Your task to perform on an android device: Go to Google maps Image 0: 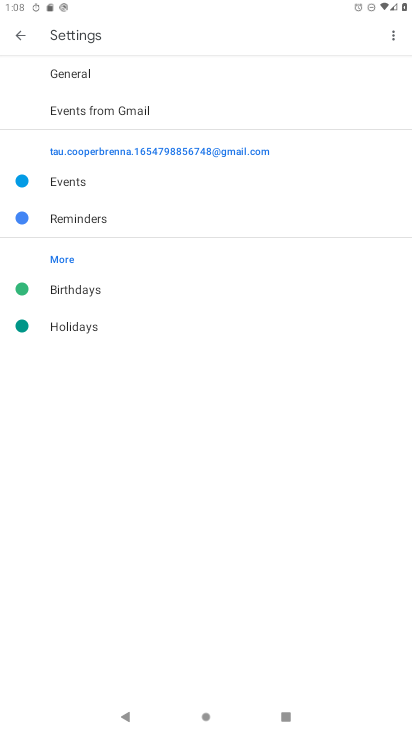
Step 0: press home button
Your task to perform on an android device: Go to Google maps Image 1: 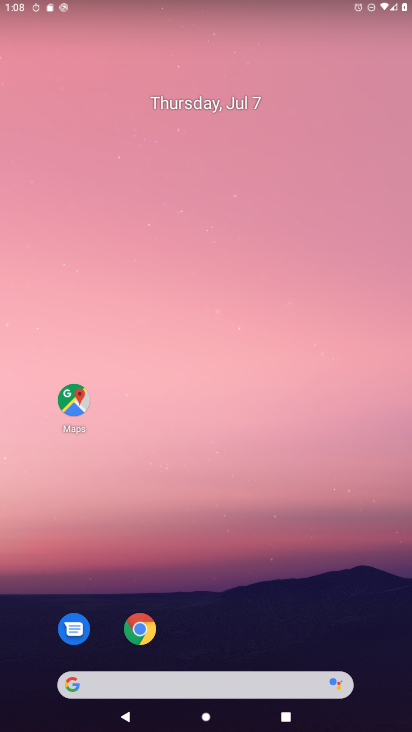
Step 1: click (71, 411)
Your task to perform on an android device: Go to Google maps Image 2: 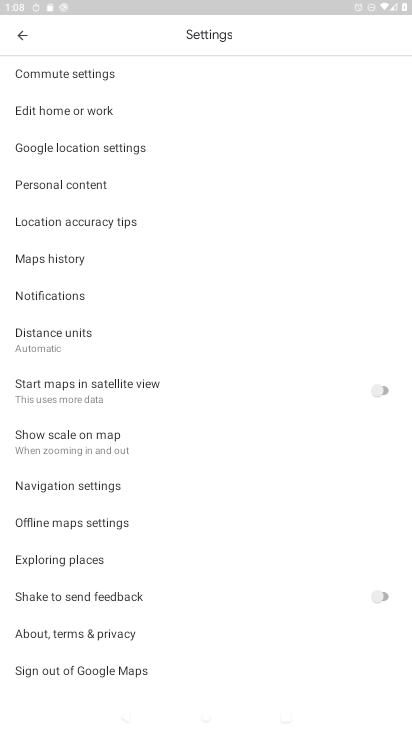
Step 2: click (22, 26)
Your task to perform on an android device: Go to Google maps Image 3: 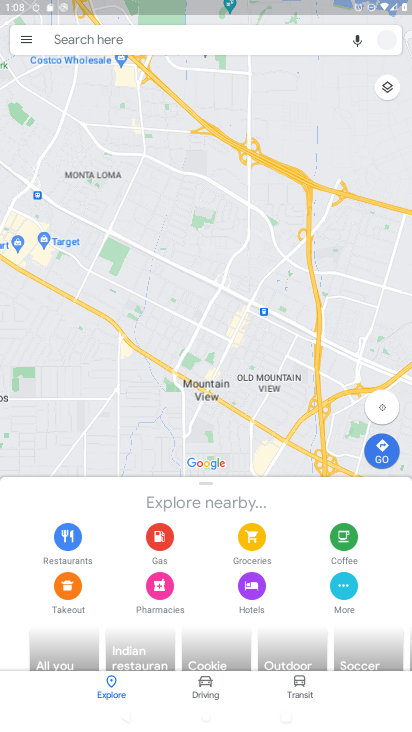
Step 3: task complete